Your task to perform on an android device: turn off translation in the chrome app Image 0: 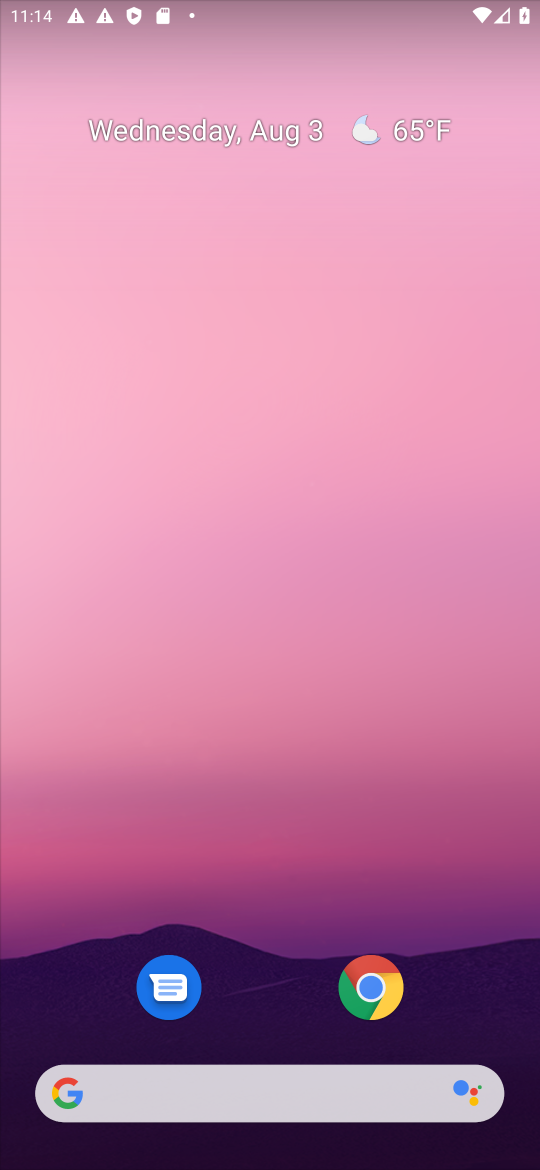
Step 0: press home button
Your task to perform on an android device: turn off translation in the chrome app Image 1: 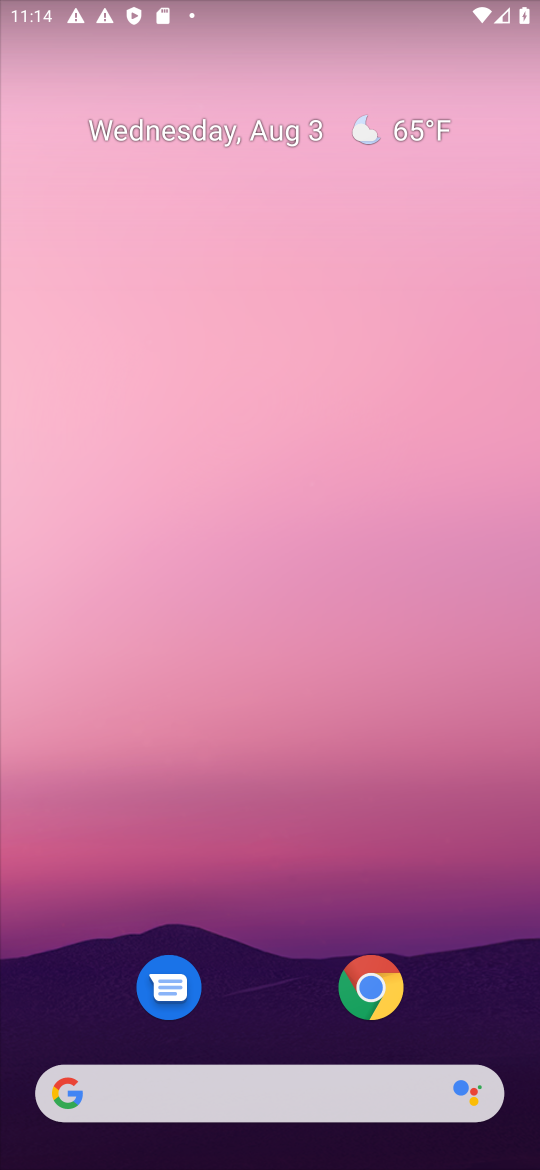
Step 1: click (355, 1006)
Your task to perform on an android device: turn off translation in the chrome app Image 2: 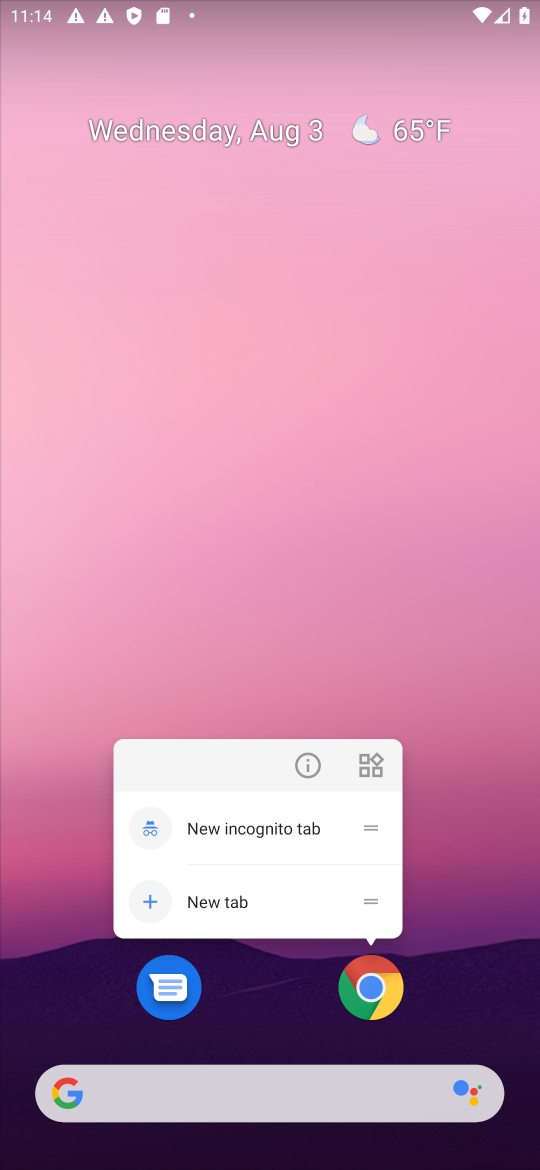
Step 2: click (355, 1006)
Your task to perform on an android device: turn off translation in the chrome app Image 3: 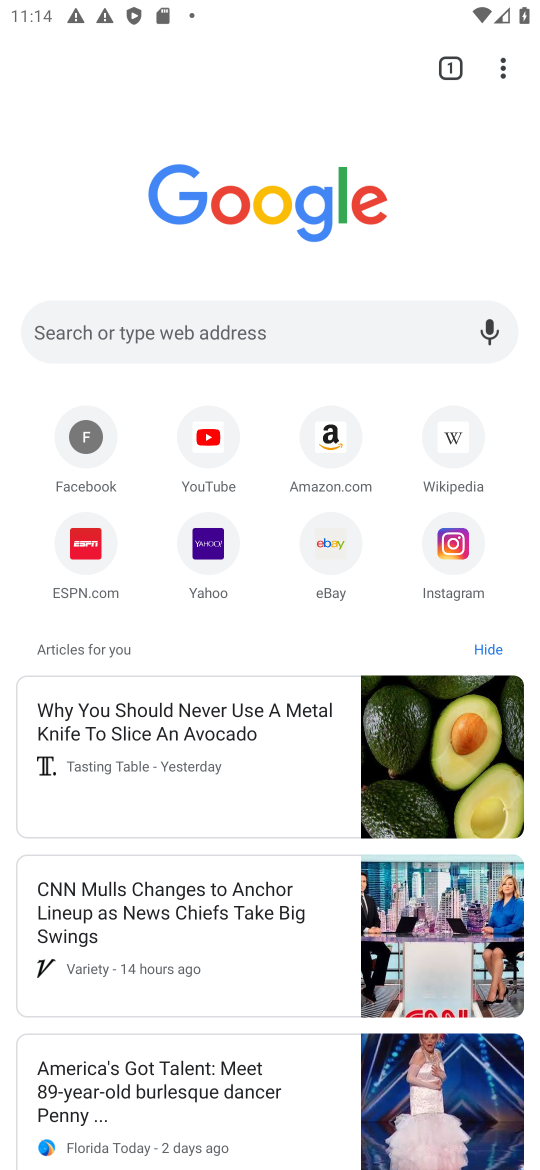
Step 3: click (503, 73)
Your task to perform on an android device: turn off translation in the chrome app Image 4: 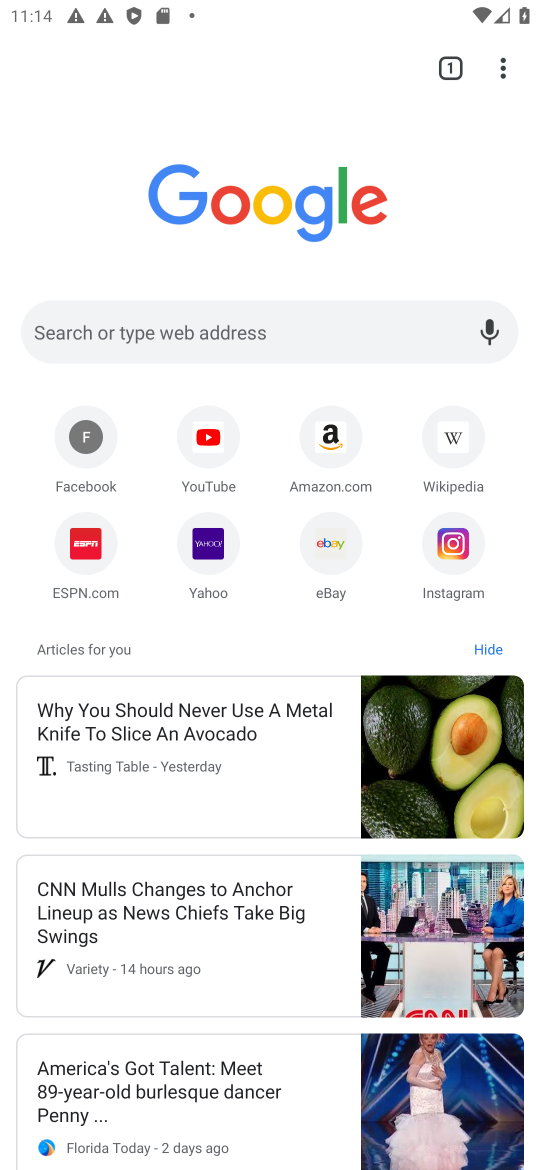
Step 4: click (508, 59)
Your task to perform on an android device: turn off translation in the chrome app Image 5: 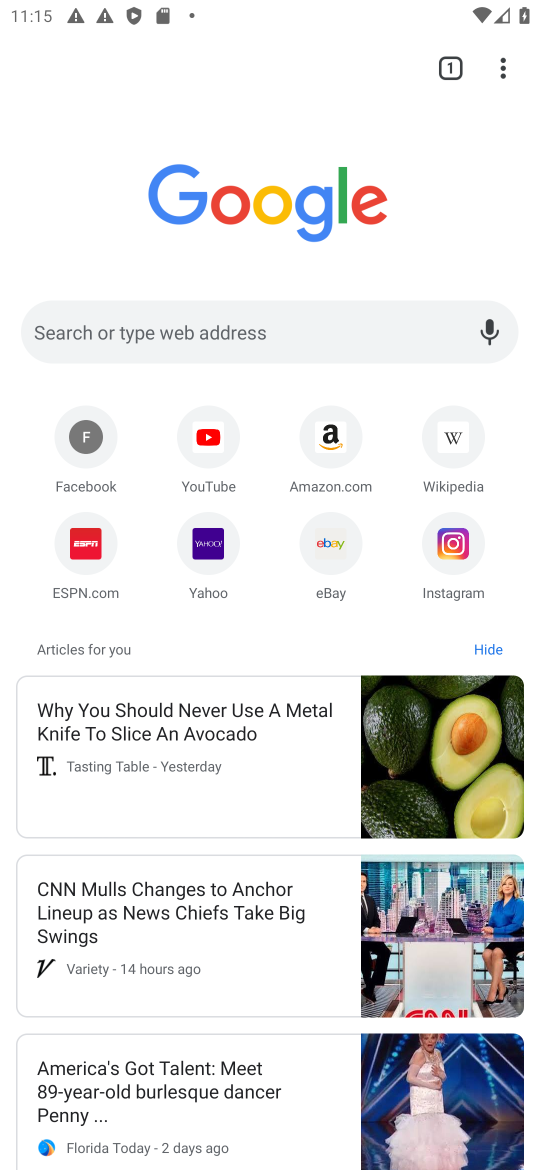
Step 5: click (498, 68)
Your task to perform on an android device: turn off translation in the chrome app Image 6: 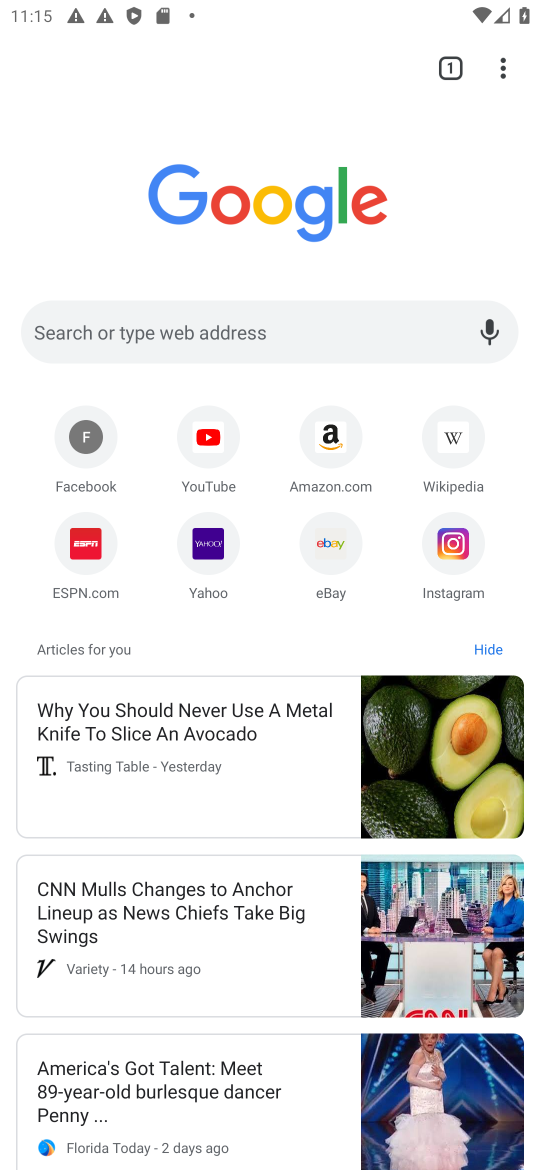
Step 6: click (505, 77)
Your task to perform on an android device: turn off translation in the chrome app Image 7: 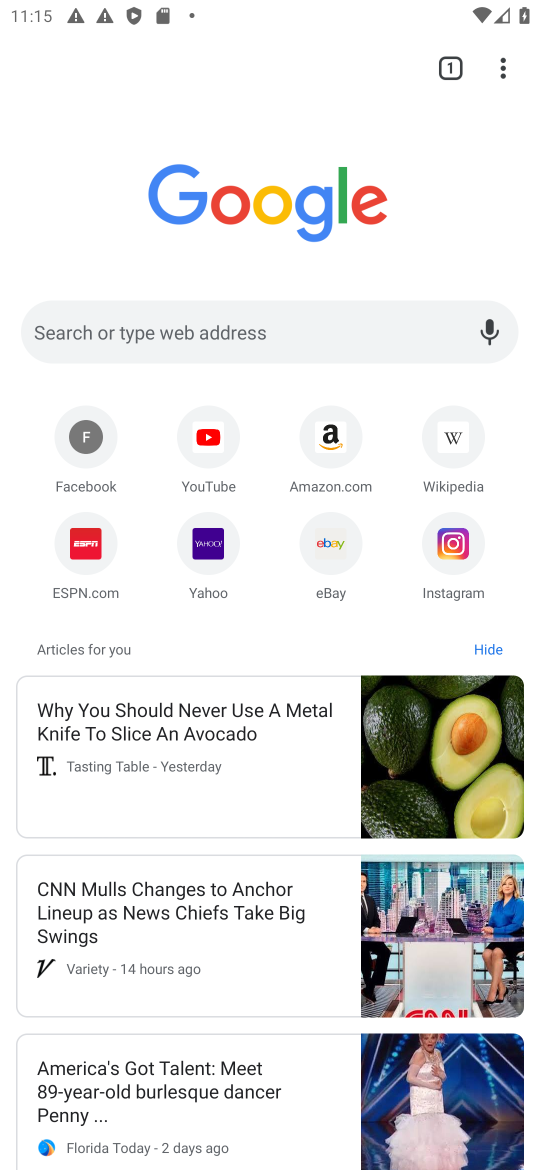
Step 7: click (504, 68)
Your task to perform on an android device: turn off translation in the chrome app Image 8: 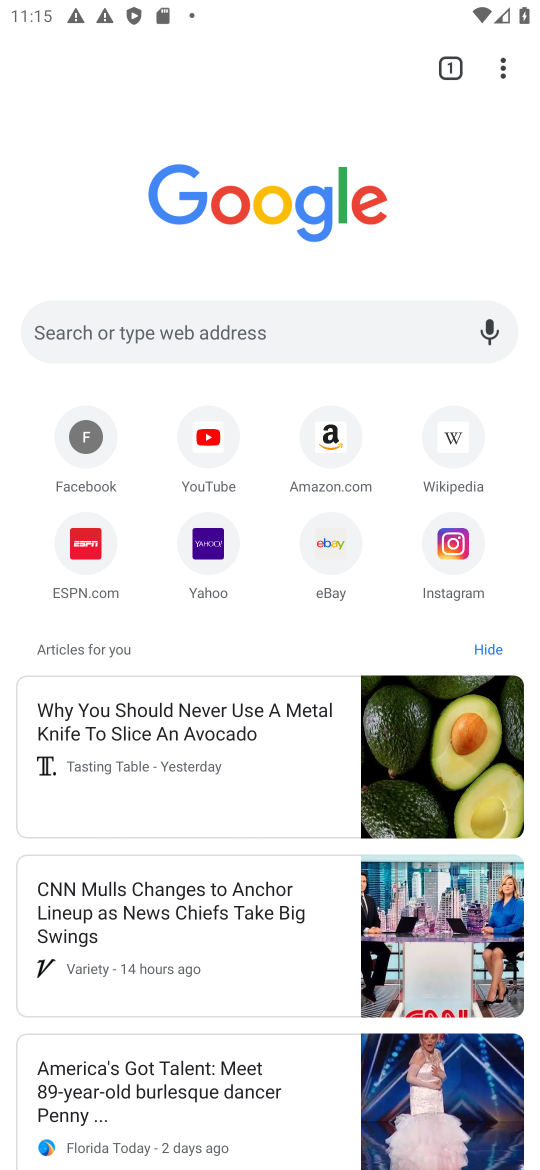
Step 8: click (514, 49)
Your task to perform on an android device: turn off translation in the chrome app Image 9: 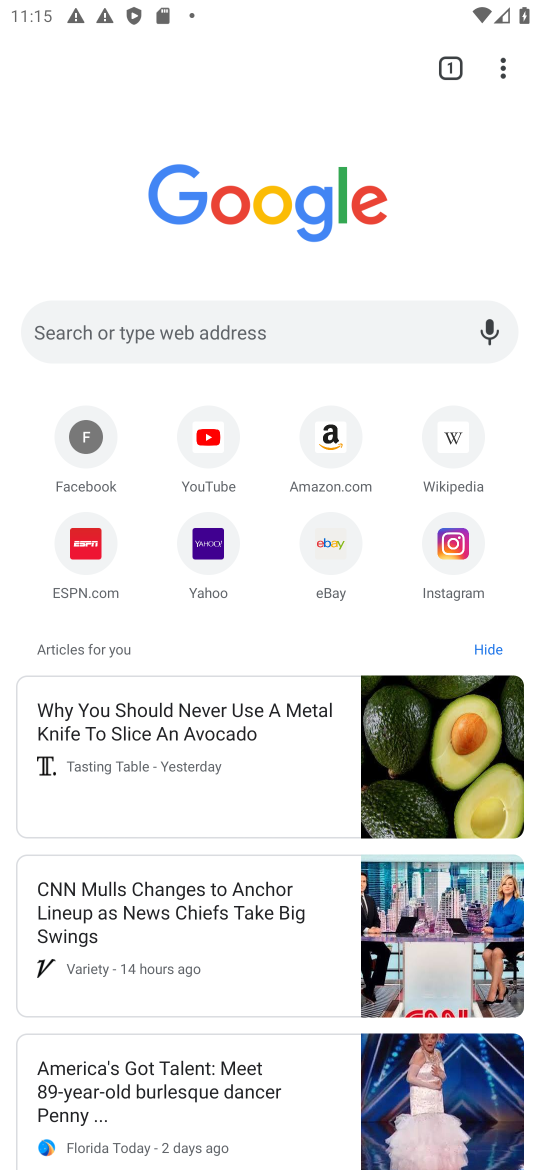
Step 9: click (514, 68)
Your task to perform on an android device: turn off translation in the chrome app Image 10: 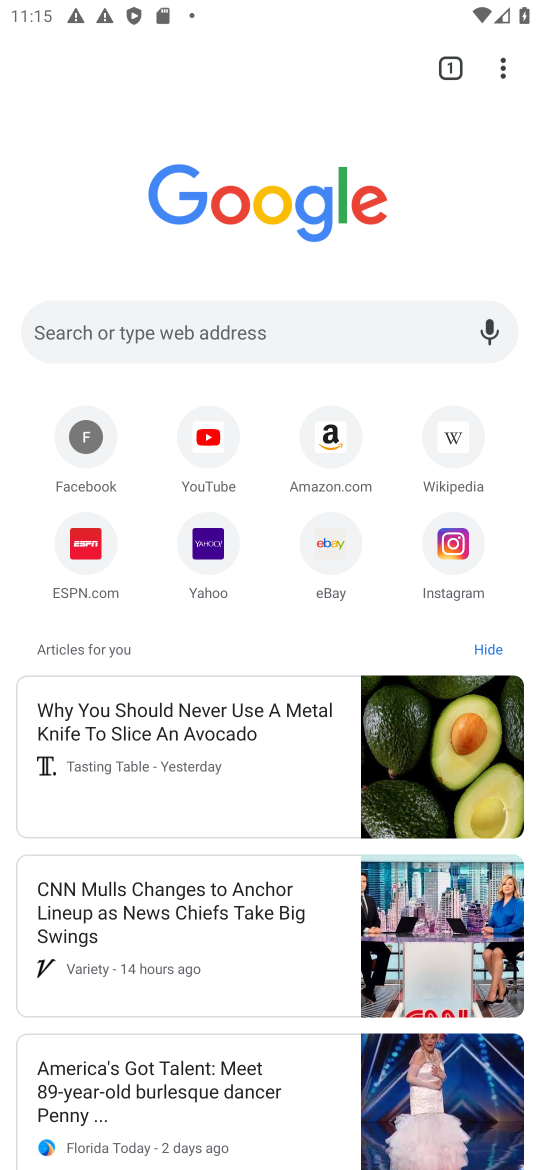
Step 10: click (509, 66)
Your task to perform on an android device: turn off translation in the chrome app Image 11: 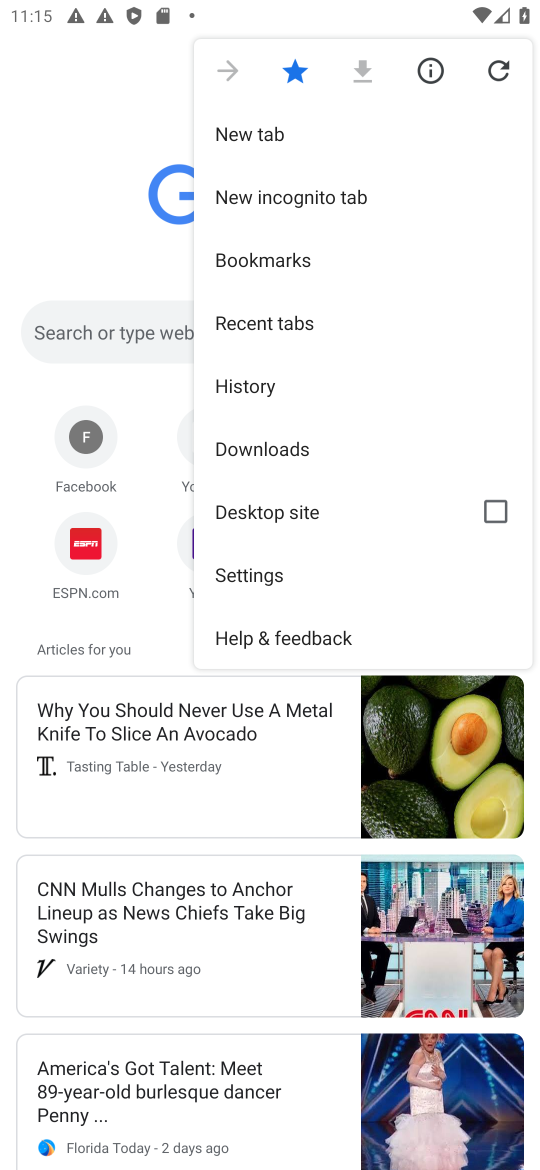
Step 11: click (300, 565)
Your task to perform on an android device: turn off translation in the chrome app Image 12: 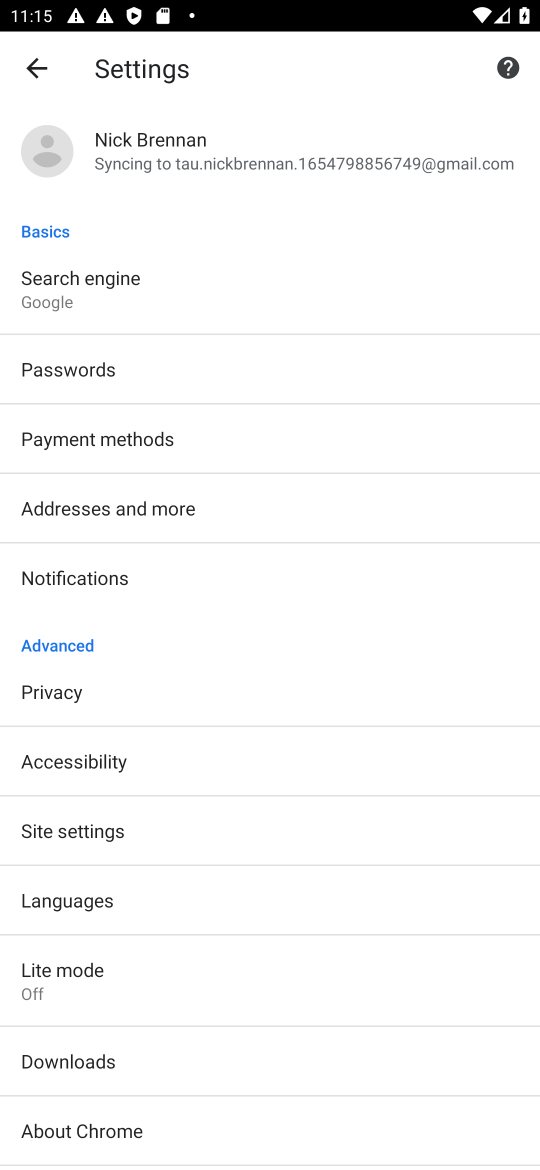
Step 12: click (49, 913)
Your task to perform on an android device: turn off translation in the chrome app Image 13: 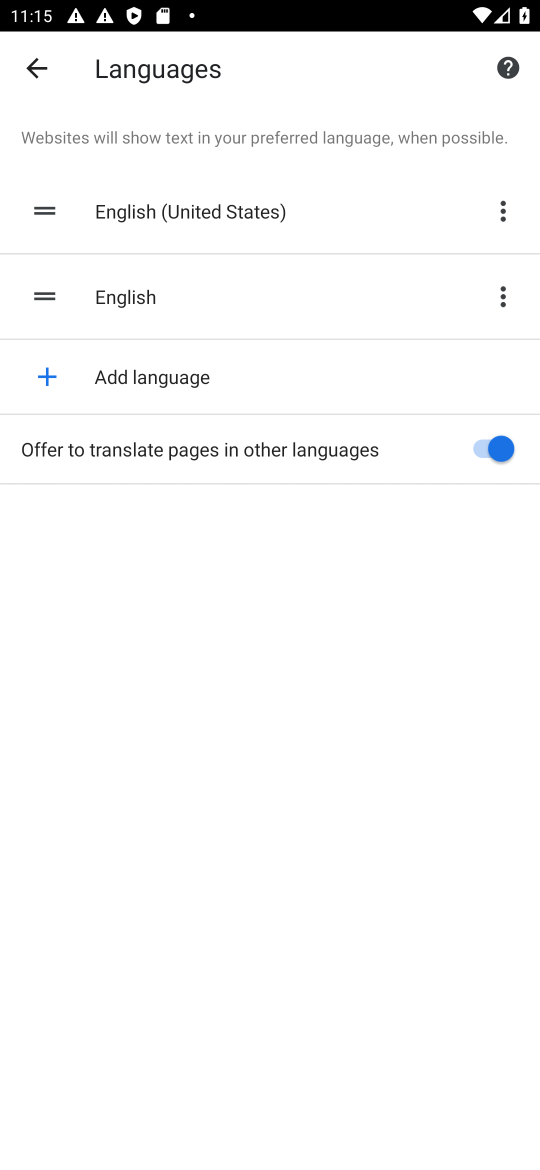
Step 13: click (482, 442)
Your task to perform on an android device: turn off translation in the chrome app Image 14: 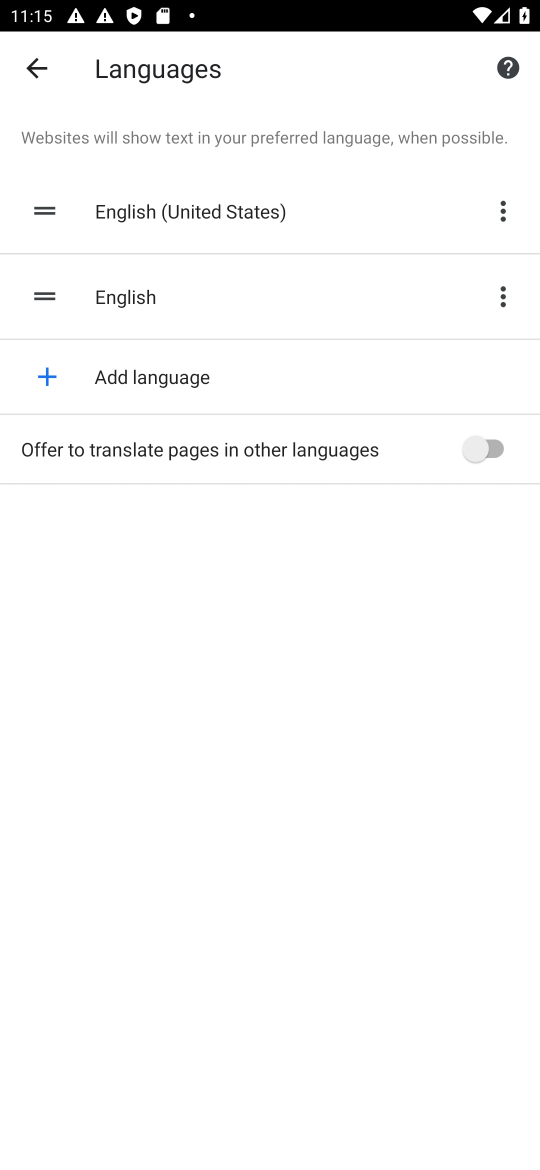
Step 14: task complete